Your task to perform on an android device: open chrome privacy settings Image 0: 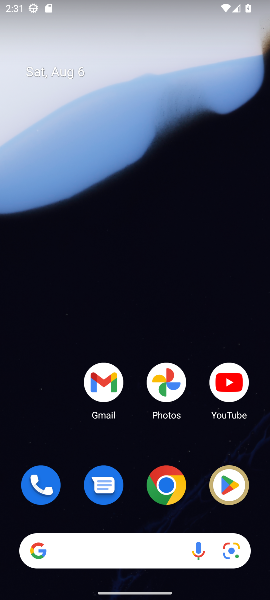
Step 0: press home button
Your task to perform on an android device: open chrome privacy settings Image 1: 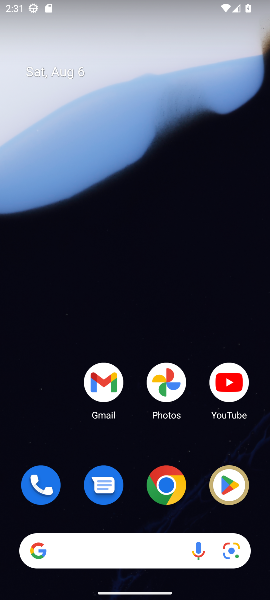
Step 1: drag from (126, 455) to (97, 1)
Your task to perform on an android device: open chrome privacy settings Image 2: 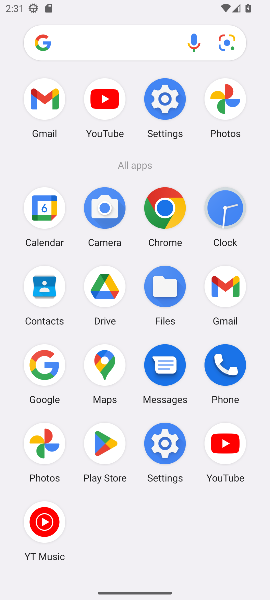
Step 2: click (160, 200)
Your task to perform on an android device: open chrome privacy settings Image 3: 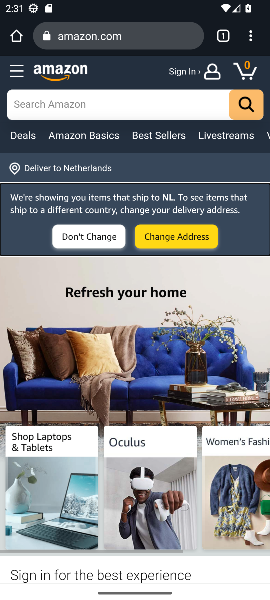
Step 3: click (87, 233)
Your task to perform on an android device: open chrome privacy settings Image 4: 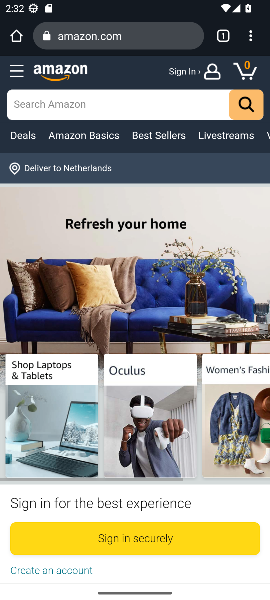
Step 4: click (254, 32)
Your task to perform on an android device: open chrome privacy settings Image 5: 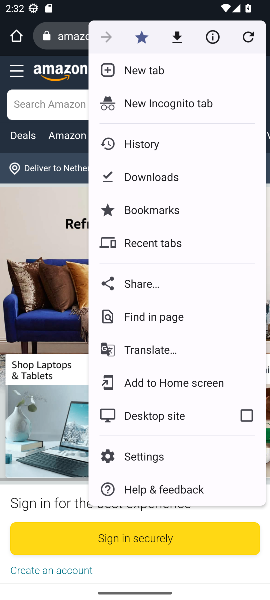
Step 5: click (170, 456)
Your task to perform on an android device: open chrome privacy settings Image 6: 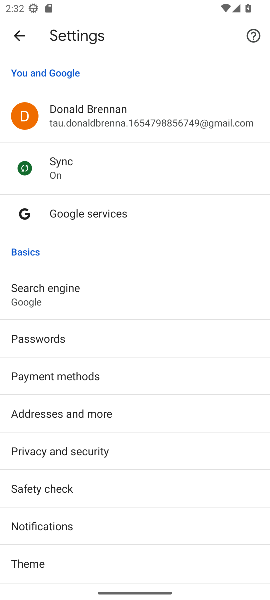
Step 6: drag from (134, 536) to (173, 96)
Your task to perform on an android device: open chrome privacy settings Image 7: 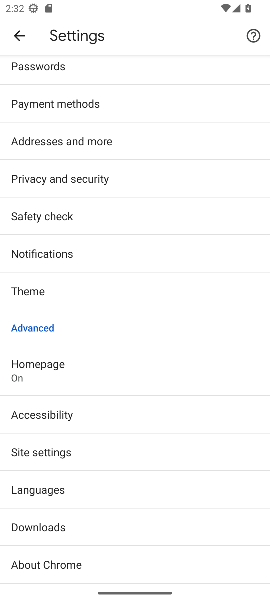
Step 7: click (114, 176)
Your task to perform on an android device: open chrome privacy settings Image 8: 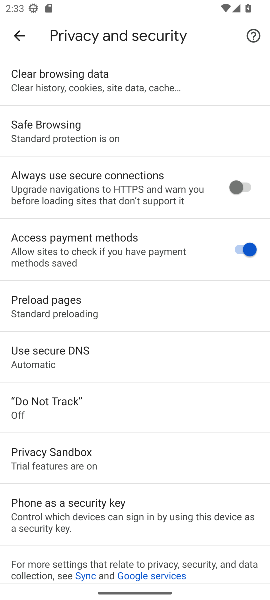
Step 8: task complete